Your task to perform on an android device: Go to accessibility settings Image 0: 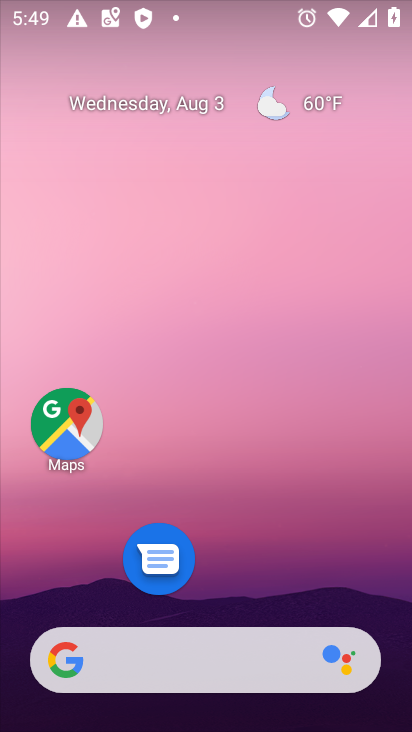
Step 0: drag from (266, 624) to (266, 161)
Your task to perform on an android device: Go to accessibility settings Image 1: 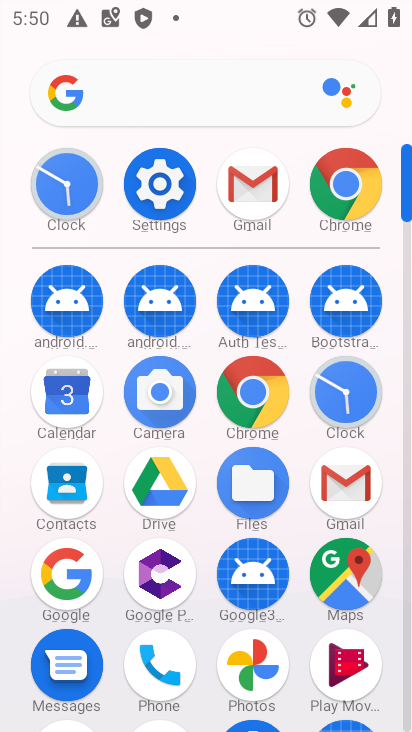
Step 1: click (174, 184)
Your task to perform on an android device: Go to accessibility settings Image 2: 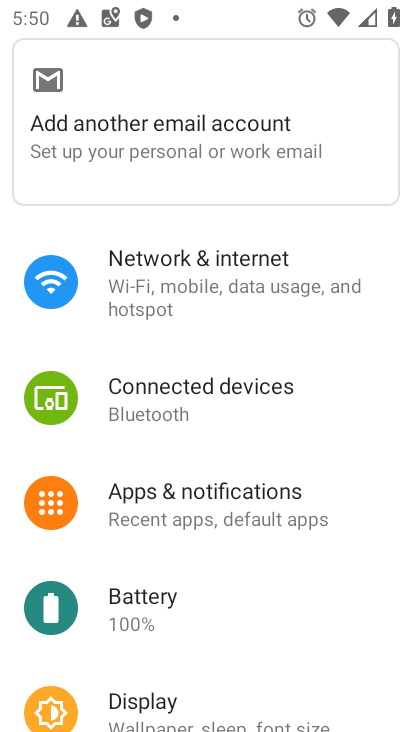
Step 2: drag from (177, 711) to (316, 274)
Your task to perform on an android device: Go to accessibility settings Image 3: 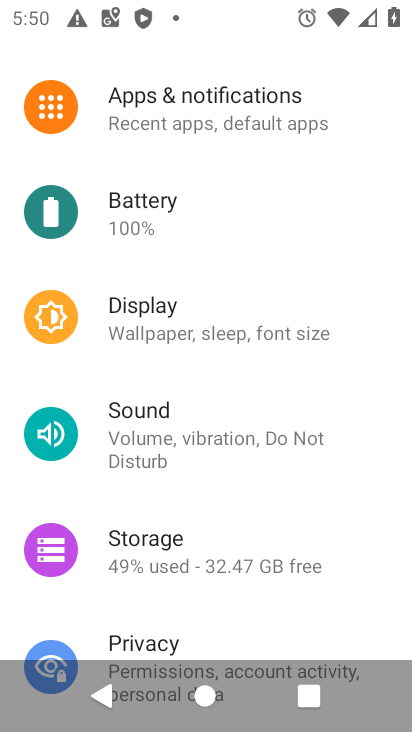
Step 3: drag from (198, 624) to (190, 239)
Your task to perform on an android device: Go to accessibility settings Image 4: 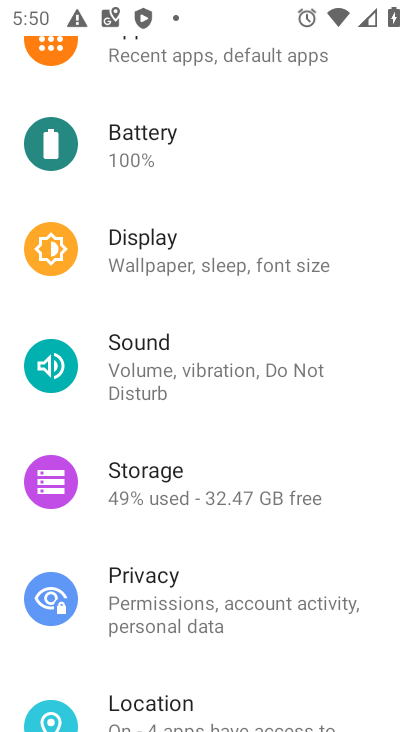
Step 4: drag from (170, 700) to (170, 322)
Your task to perform on an android device: Go to accessibility settings Image 5: 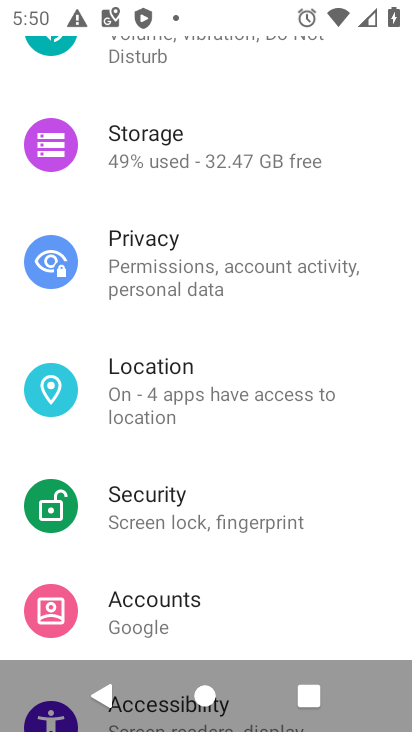
Step 5: drag from (184, 577) to (184, 301)
Your task to perform on an android device: Go to accessibility settings Image 6: 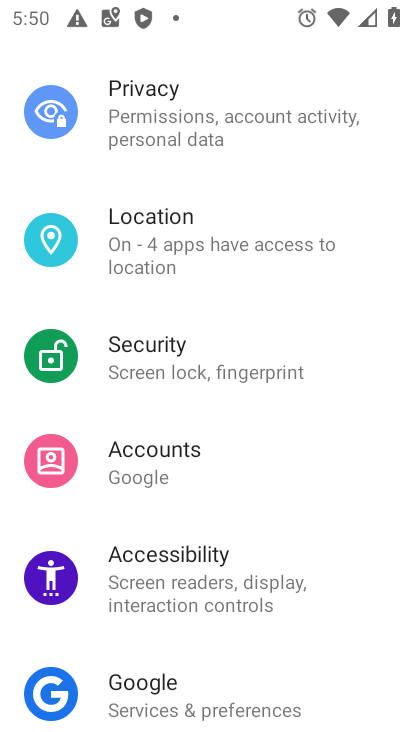
Step 6: click (177, 594)
Your task to perform on an android device: Go to accessibility settings Image 7: 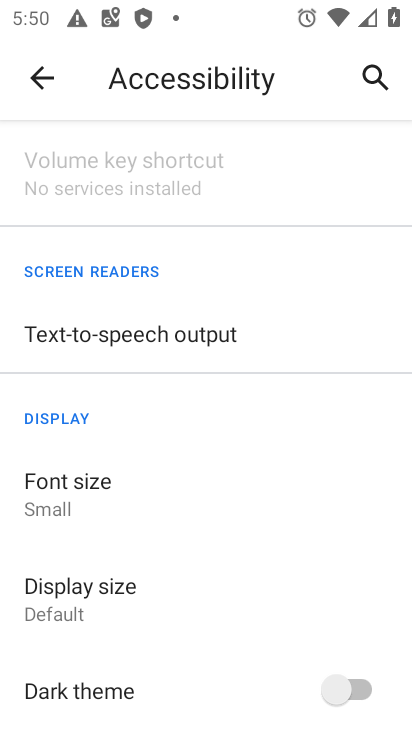
Step 7: task complete